Your task to perform on an android device: Go to accessibility settings Image 0: 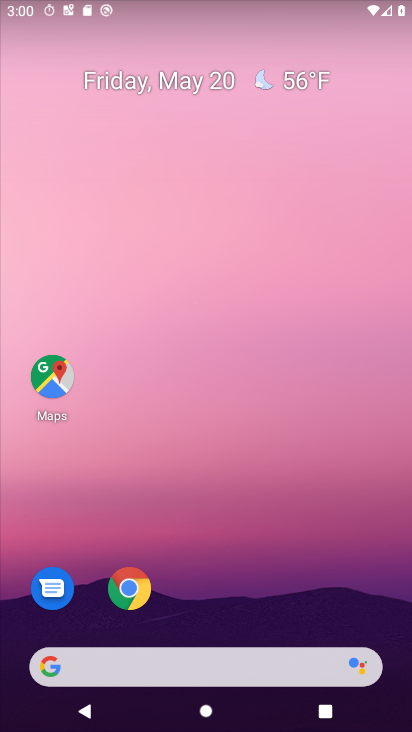
Step 0: drag from (4, 190) to (223, 0)
Your task to perform on an android device: Go to accessibility settings Image 1: 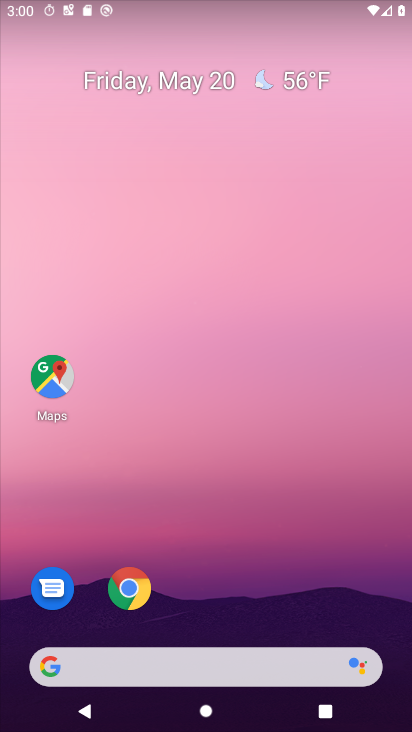
Step 1: drag from (10, 618) to (225, 133)
Your task to perform on an android device: Go to accessibility settings Image 2: 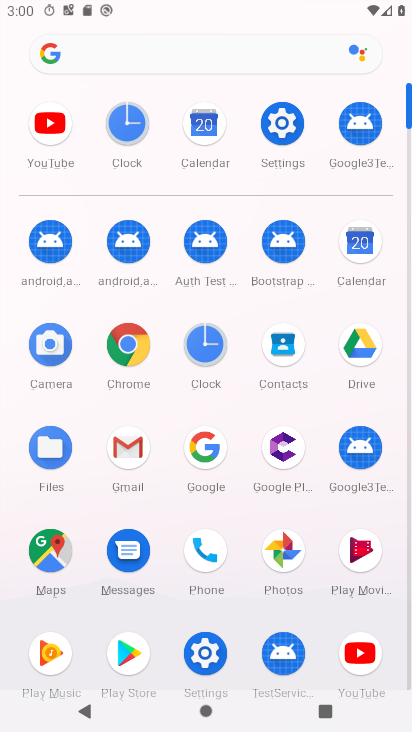
Step 2: click (287, 139)
Your task to perform on an android device: Go to accessibility settings Image 3: 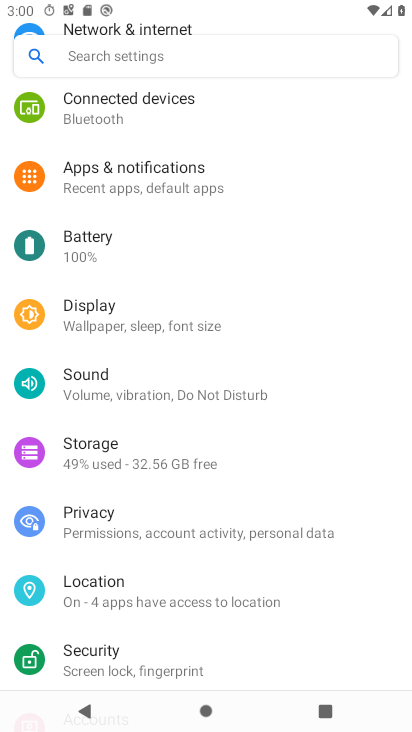
Step 3: drag from (47, 661) to (170, 218)
Your task to perform on an android device: Go to accessibility settings Image 4: 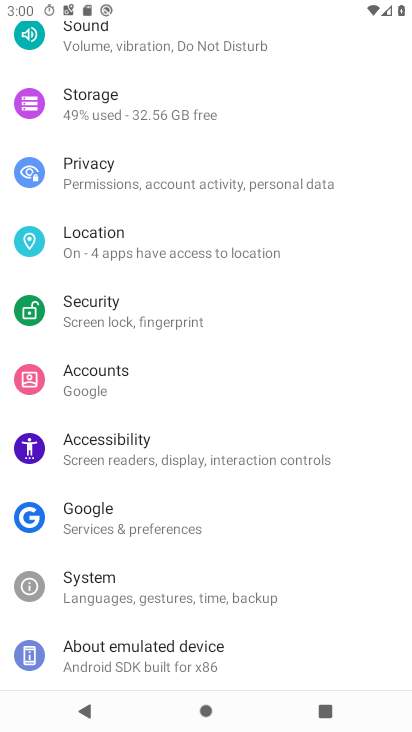
Step 4: drag from (81, 180) to (69, 640)
Your task to perform on an android device: Go to accessibility settings Image 5: 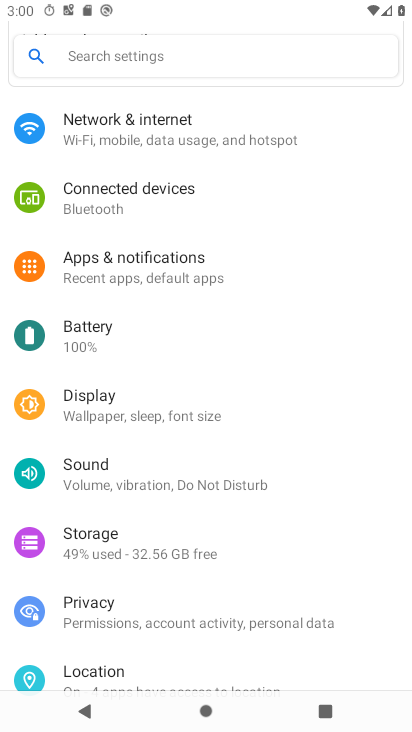
Step 5: drag from (72, 662) to (165, 296)
Your task to perform on an android device: Go to accessibility settings Image 6: 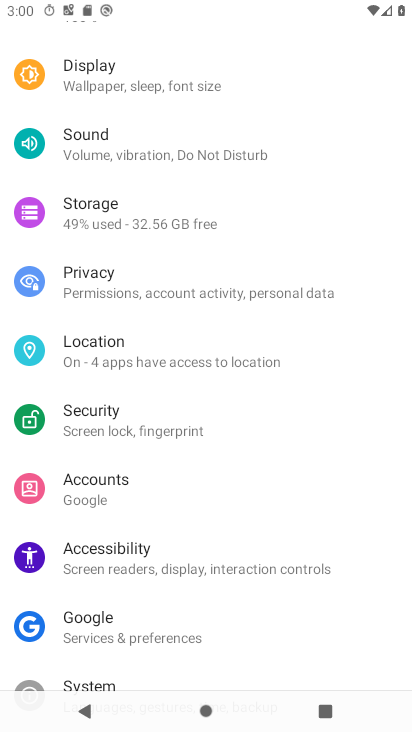
Step 6: click (172, 559)
Your task to perform on an android device: Go to accessibility settings Image 7: 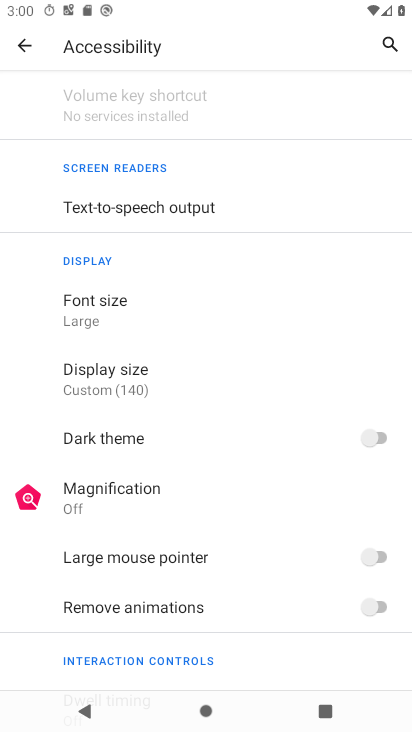
Step 7: task complete